Your task to perform on an android device: turn pop-ups off in chrome Image 0: 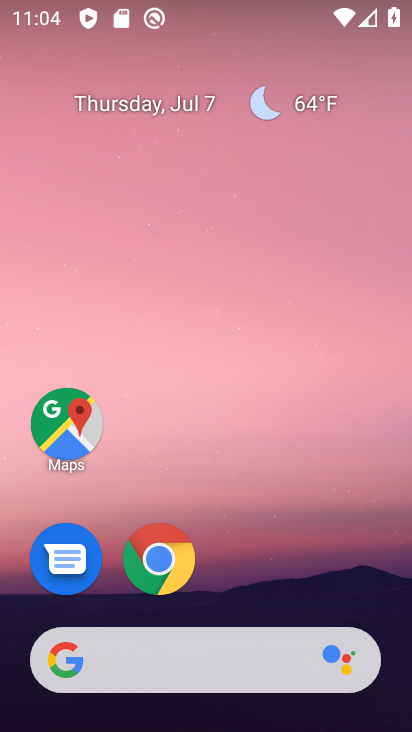
Step 0: click (152, 560)
Your task to perform on an android device: turn pop-ups off in chrome Image 1: 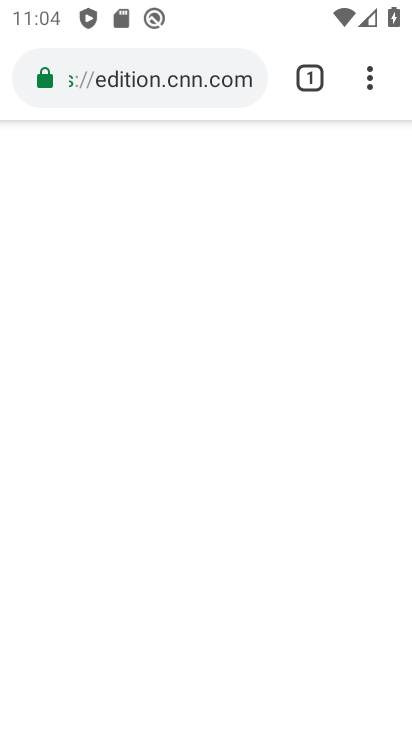
Step 1: click (368, 74)
Your task to perform on an android device: turn pop-ups off in chrome Image 2: 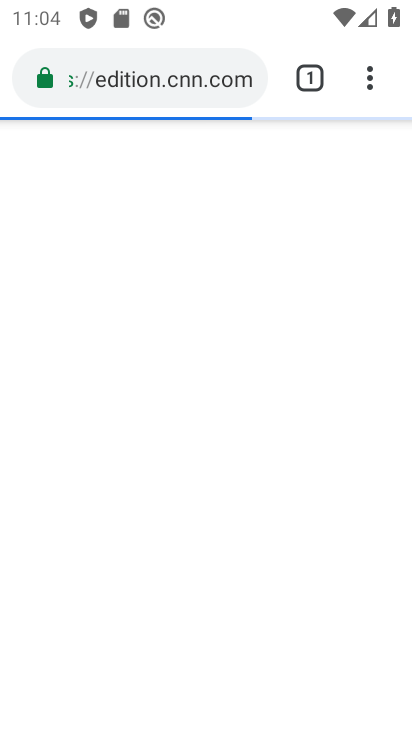
Step 2: click (368, 74)
Your task to perform on an android device: turn pop-ups off in chrome Image 3: 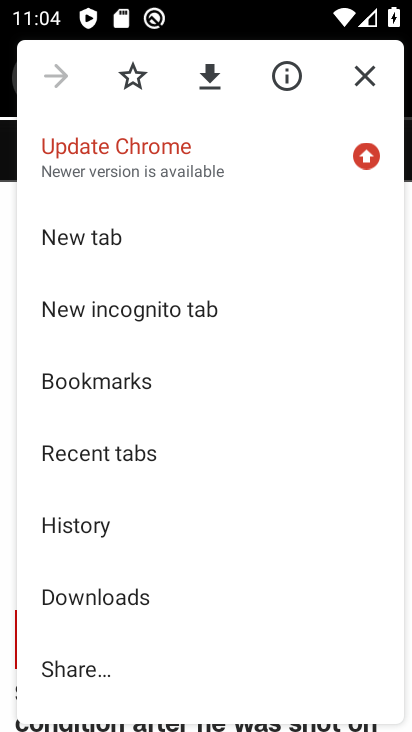
Step 3: drag from (97, 674) to (144, 332)
Your task to perform on an android device: turn pop-ups off in chrome Image 4: 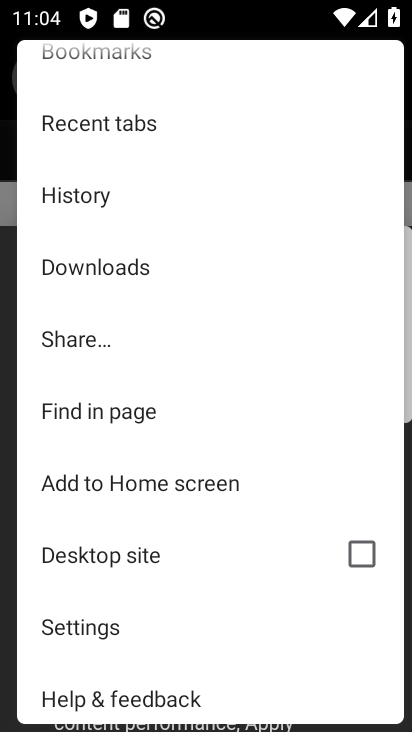
Step 4: click (96, 626)
Your task to perform on an android device: turn pop-ups off in chrome Image 5: 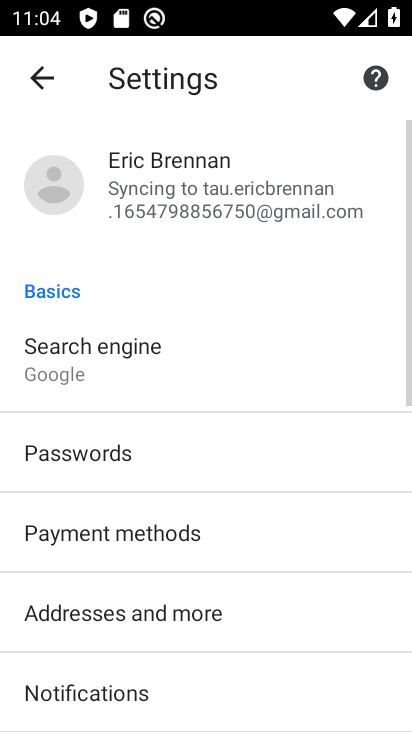
Step 5: drag from (91, 677) to (150, 273)
Your task to perform on an android device: turn pop-ups off in chrome Image 6: 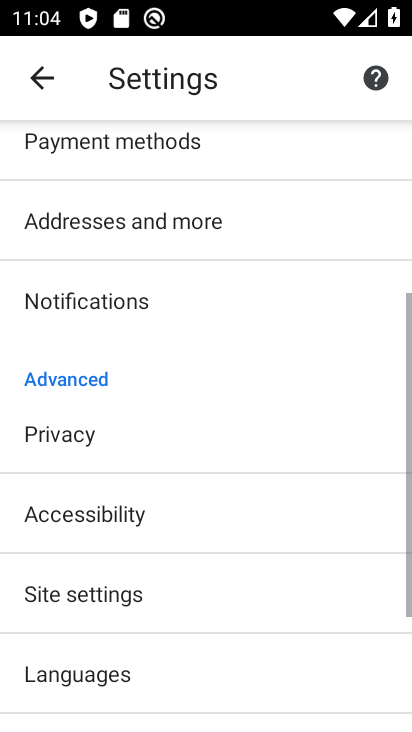
Step 6: drag from (114, 671) to (108, 365)
Your task to perform on an android device: turn pop-ups off in chrome Image 7: 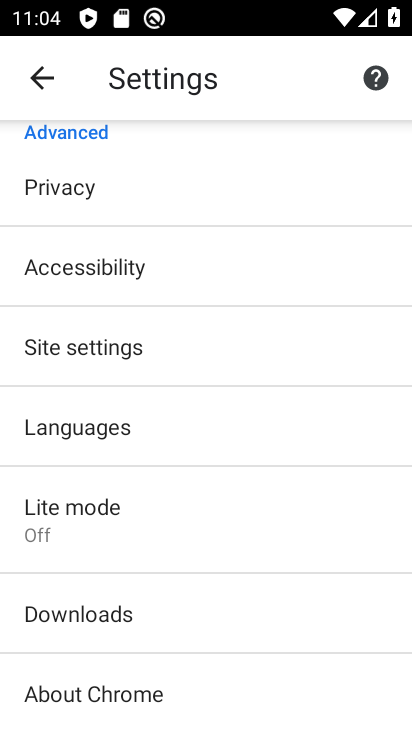
Step 7: click (92, 346)
Your task to perform on an android device: turn pop-ups off in chrome Image 8: 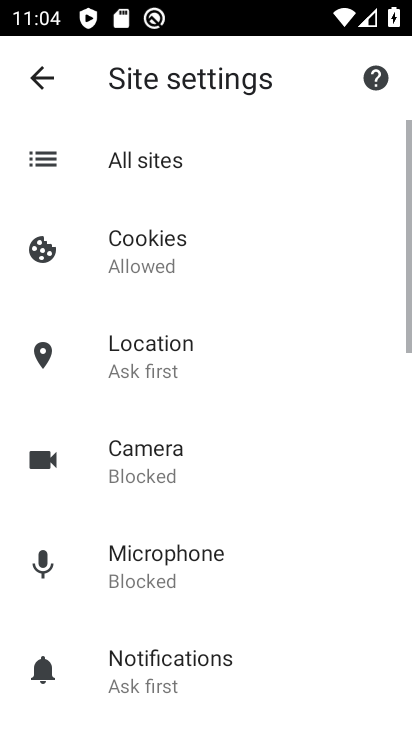
Step 8: drag from (96, 690) to (134, 426)
Your task to perform on an android device: turn pop-ups off in chrome Image 9: 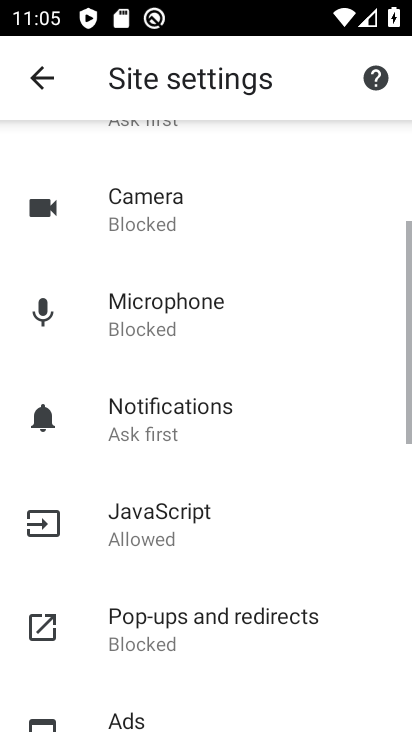
Step 9: click (144, 609)
Your task to perform on an android device: turn pop-ups off in chrome Image 10: 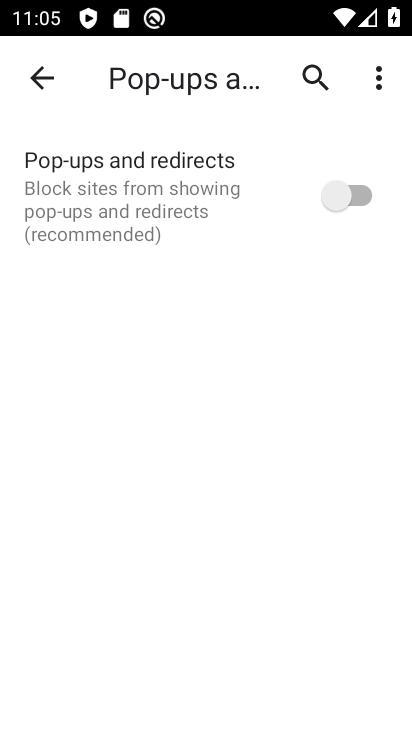
Step 10: task complete